Your task to perform on an android device: Go to ESPN.com Image 0: 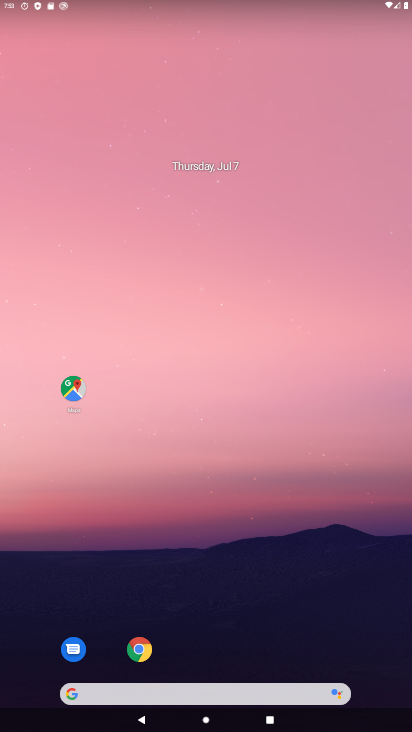
Step 0: click (134, 648)
Your task to perform on an android device: Go to ESPN.com Image 1: 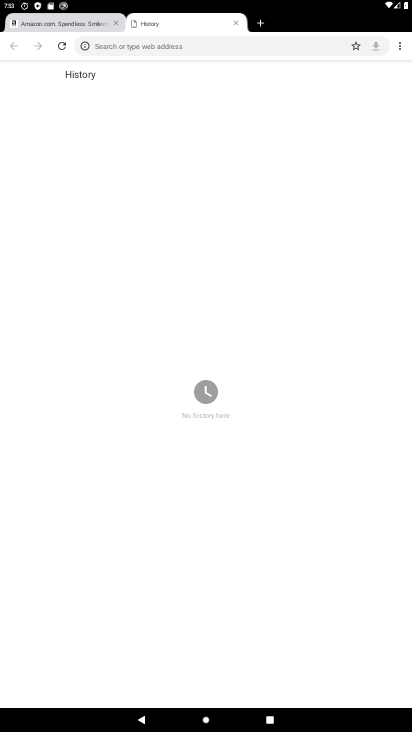
Step 1: click (233, 23)
Your task to perform on an android device: Go to ESPN.com Image 2: 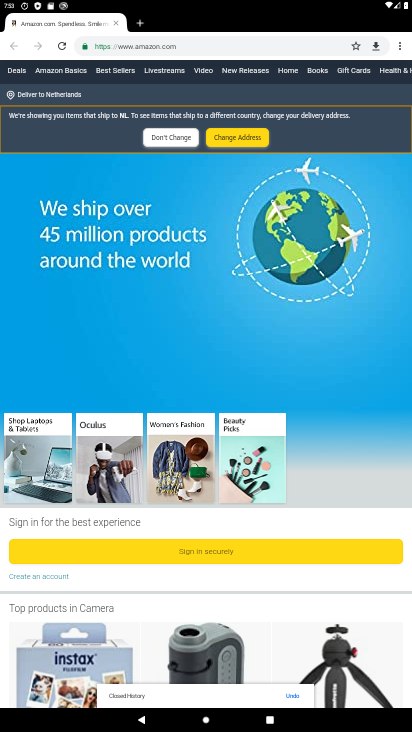
Step 2: click (142, 21)
Your task to perform on an android device: Go to ESPN.com Image 3: 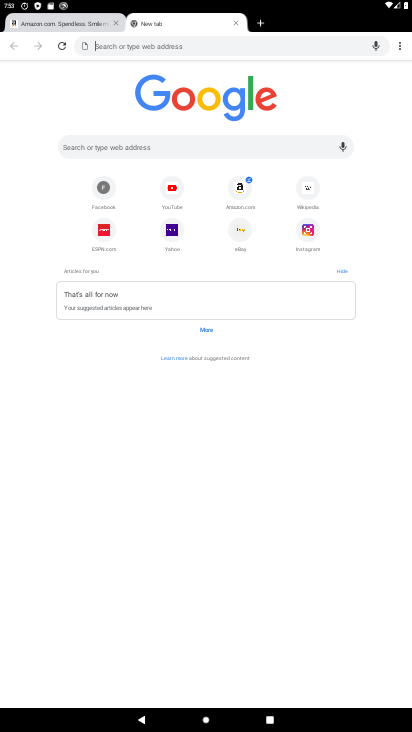
Step 3: click (102, 227)
Your task to perform on an android device: Go to ESPN.com Image 4: 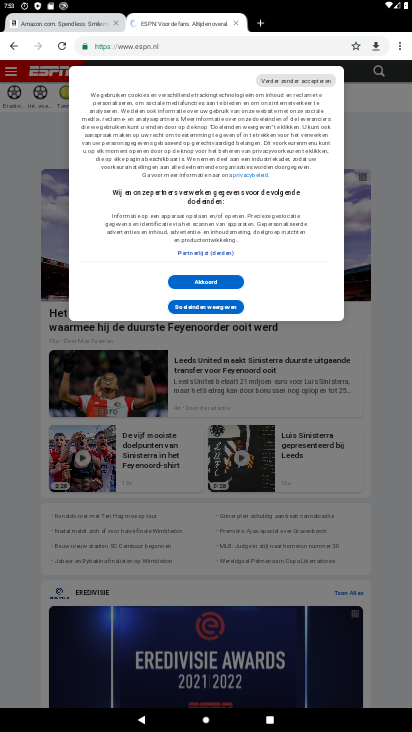
Step 4: click (199, 279)
Your task to perform on an android device: Go to ESPN.com Image 5: 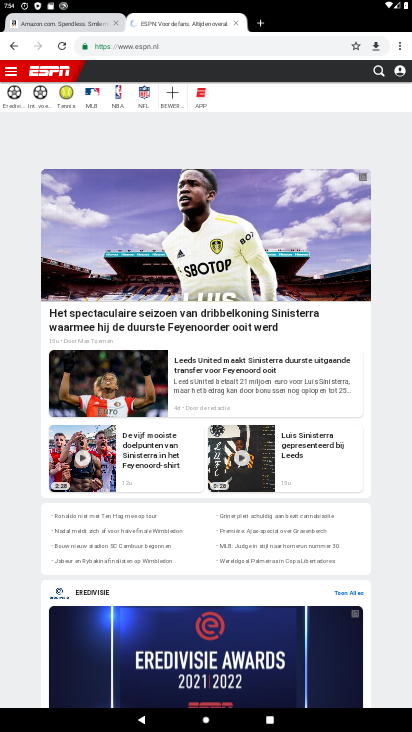
Step 5: task complete